Your task to perform on an android device: Open calendar and show me the fourth week of next month Image 0: 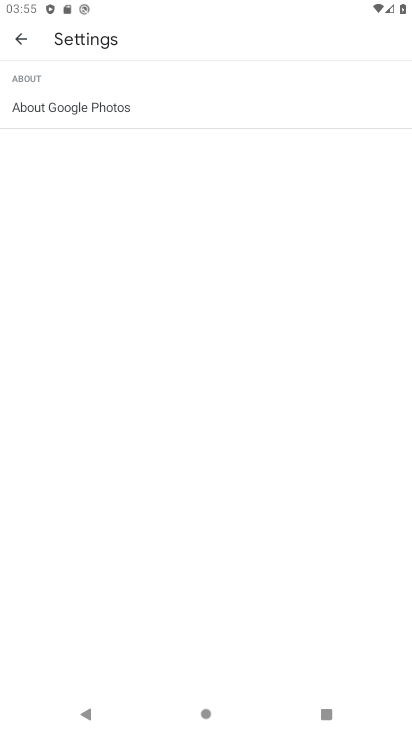
Step 0: press home button
Your task to perform on an android device: Open calendar and show me the fourth week of next month Image 1: 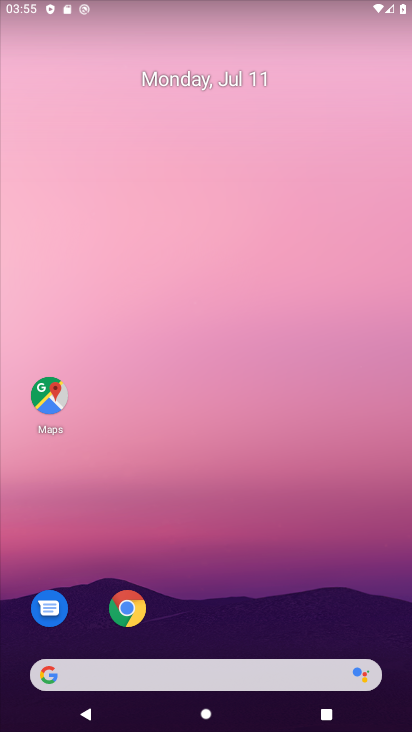
Step 1: drag from (256, 684) to (278, 7)
Your task to perform on an android device: Open calendar and show me the fourth week of next month Image 2: 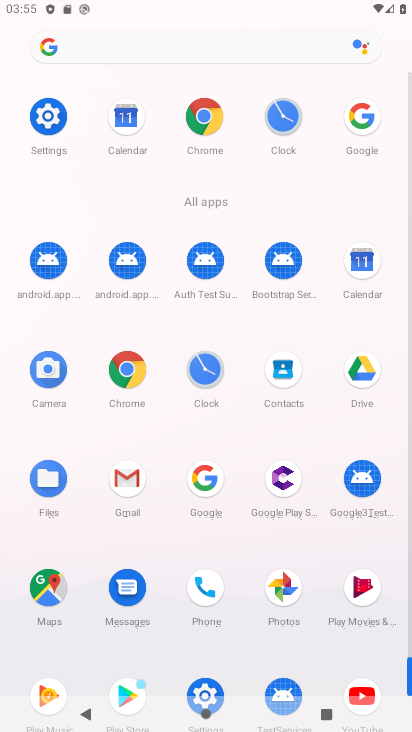
Step 2: click (128, 122)
Your task to perform on an android device: Open calendar and show me the fourth week of next month Image 3: 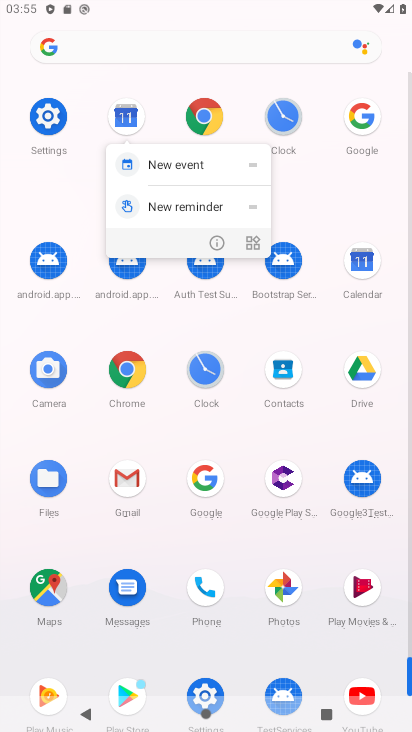
Step 3: click (119, 126)
Your task to perform on an android device: Open calendar and show me the fourth week of next month Image 4: 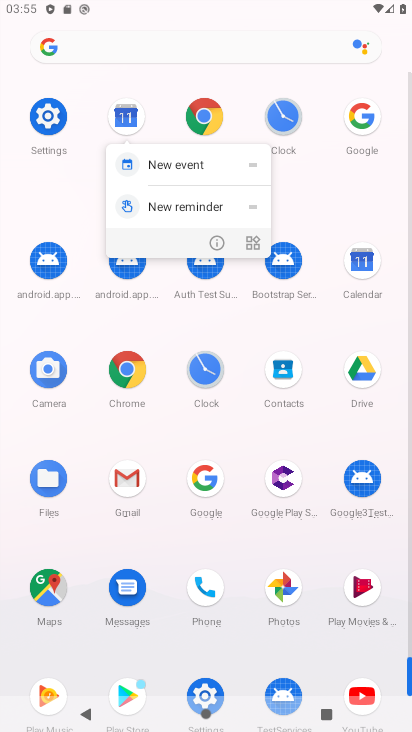
Step 4: click (119, 126)
Your task to perform on an android device: Open calendar and show me the fourth week of next month Image 5: 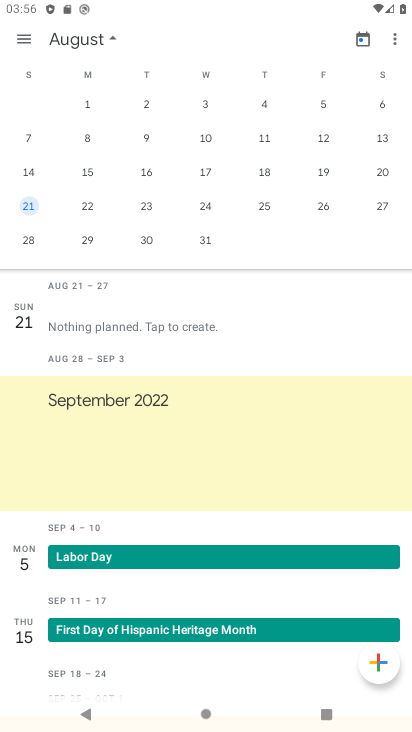
Step 5: task complete